Your task to perform on an android device: Open maps Image 0: 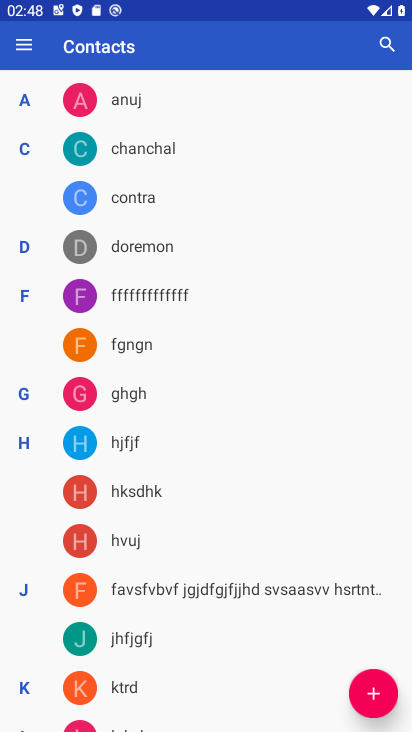
Step 0: press home button
Your task to perform on an android device: Open maps Image 1: 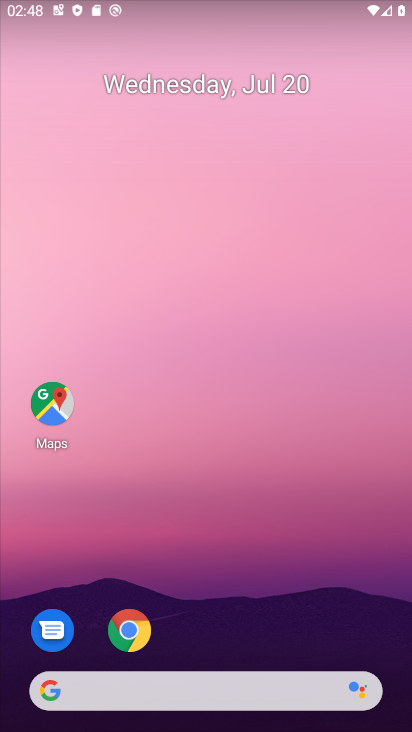
Step 1: drag from (360, 624) to (390, 196)
Your task to perform on an android device: Open maps Image 2: 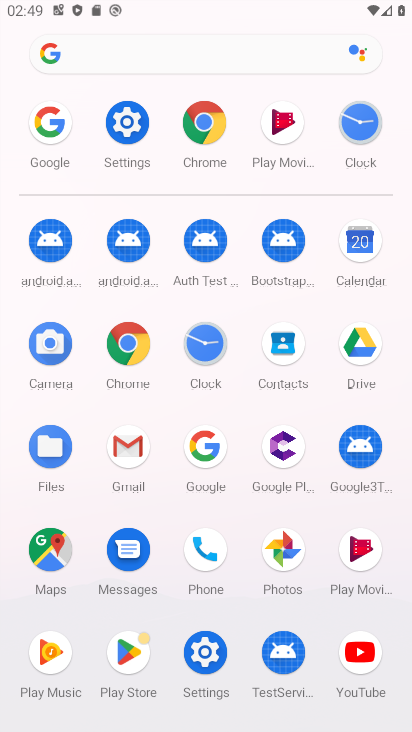
Step 2: click (60, 548)
Your task to perform on an android device: Open maps Image 3: 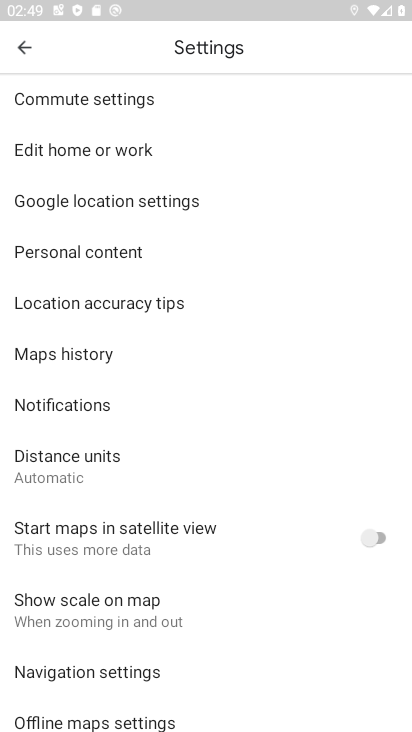
Step 3: task complete